Your task to perform on an android device: delete the emails in spam in the gmail app Image 0: 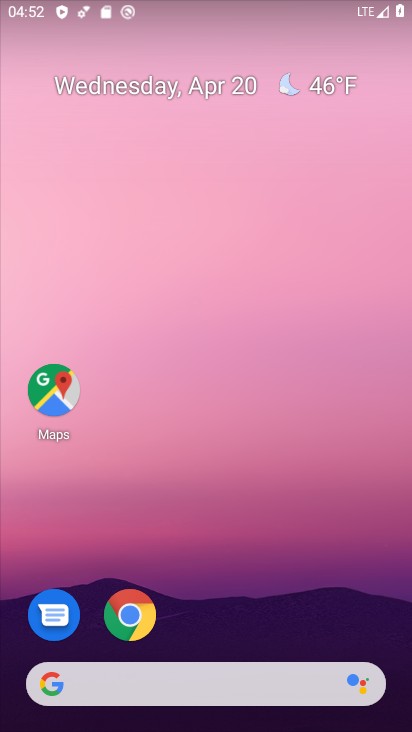
Step 0: drag from (196, 567) to (375, 20)
Your task to perform on an android device: delete the emails in spam in the gmail app Image 1: 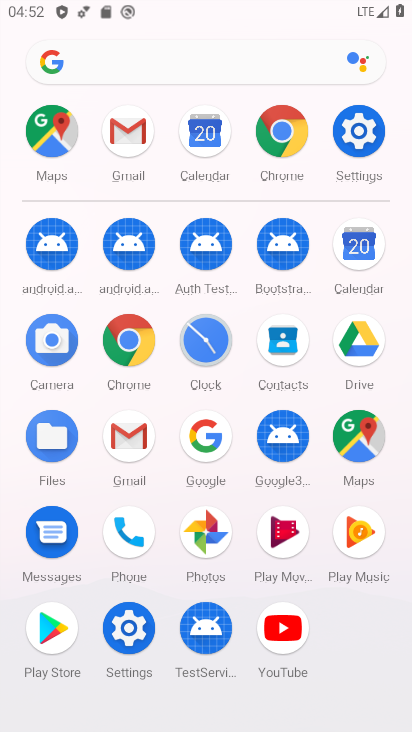
Step 1: click (126, 127)
Your task to perform on an android device: delete the emails in spam in the gmail app Image 2: 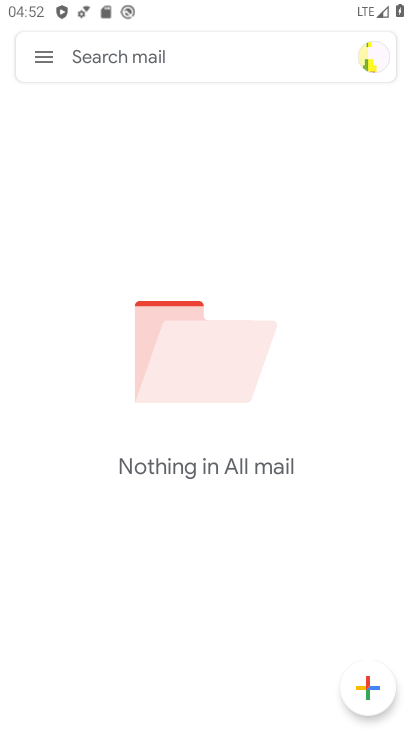
Step 2: click (33, 57)
Your task to perform on an android device: delete the emails in spam in the gmail app Image 3: 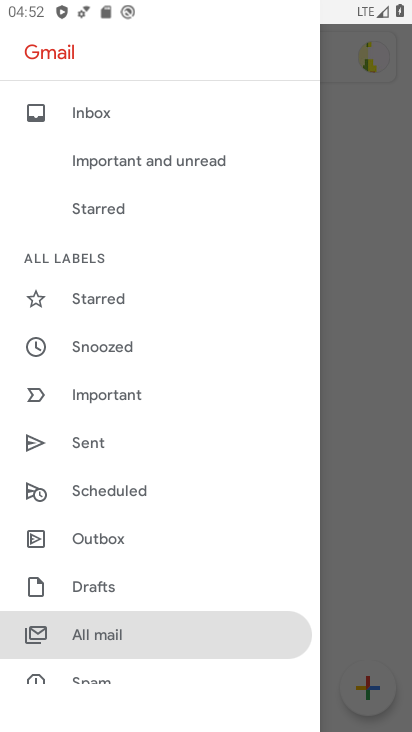
Step 3: click (109, 679)
Your task to perform on an android device: delete the emails in spam in the gmail app Image 4: 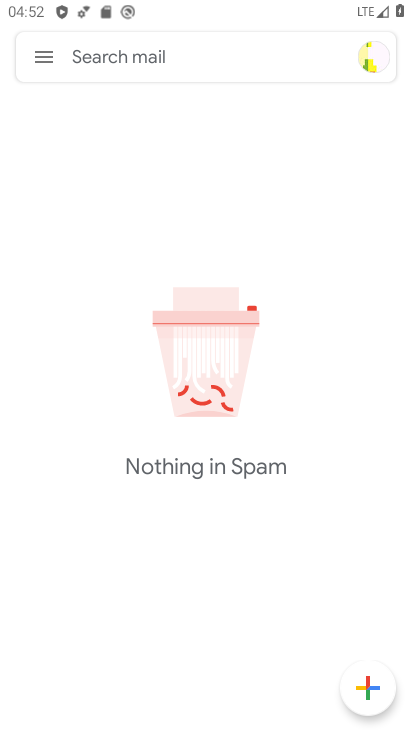
Step 4: task complete